Your task to perform on an android device: Open Chrome and go to the settings page Image 0: 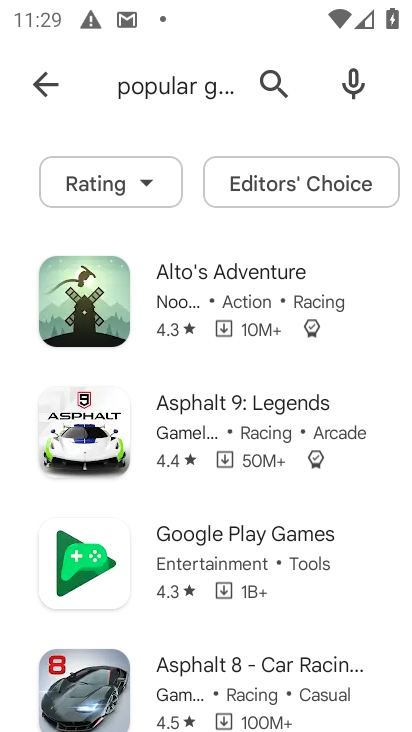
Step 0: press home button
Your task to perform on an android device: Open Chrome and go to the settings page Image 1: 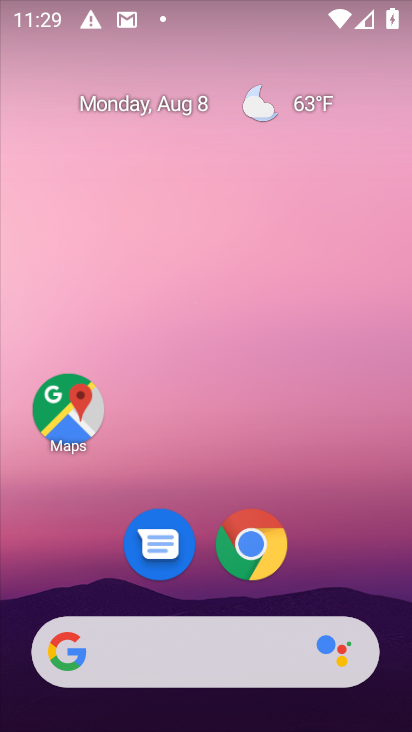
Step 1: click (250, 542)
Your task to perform on an android device: Open Chrome and go to the settings page Image 2: 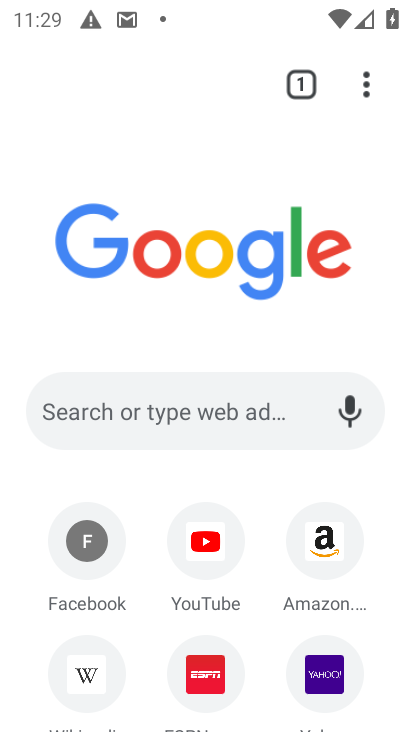
Step 2: click (365, 83)
Your task to perform on an android device: Open Chrome and go to the settings page Image 3: 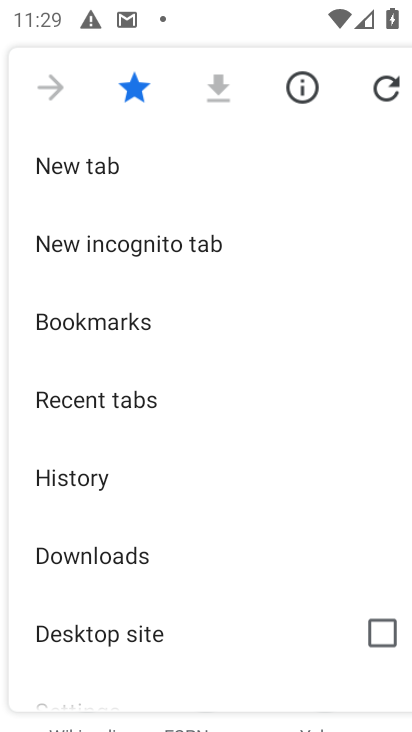
Step 3: drag from (136, 492) to (180, 371)
Your task to perform on an android device: Open Chrome and go to the settings page Image 4: 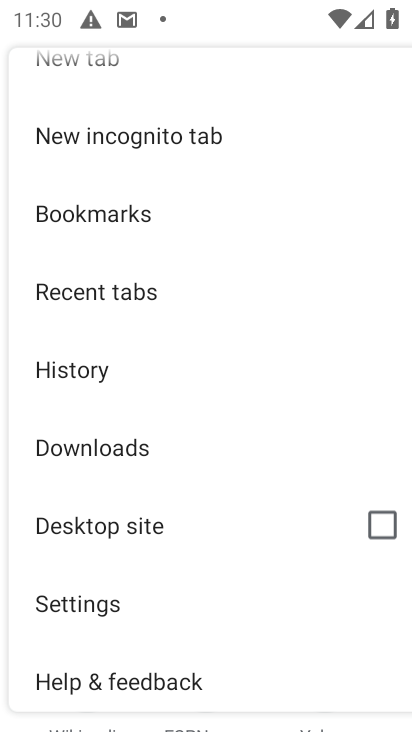
Step 4: drag from (126, 498) to (217, 392)
Your task to perform on an android device: Open Chrome and go to the settings page Image 5: 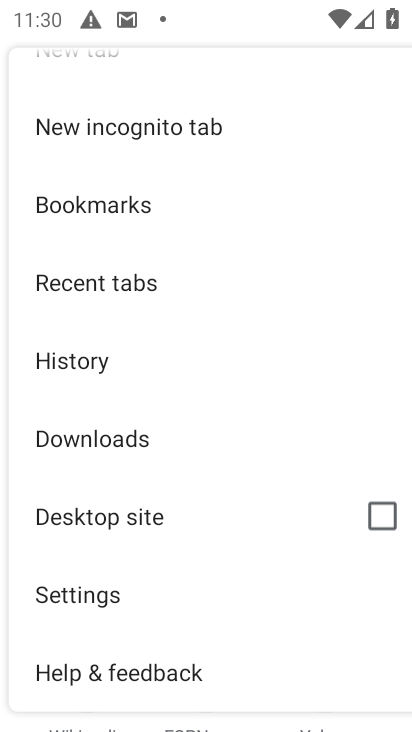
Step 5: click (96, 593)
Your task to perform on an android device: Open Chrome and go to the settings page Image 6: 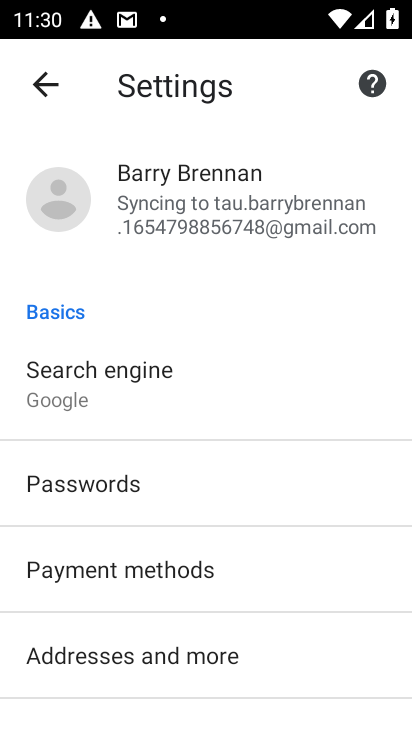
Step 6: task complete